Your task to perform on an android device: change your default location settings in chrome Image 0: 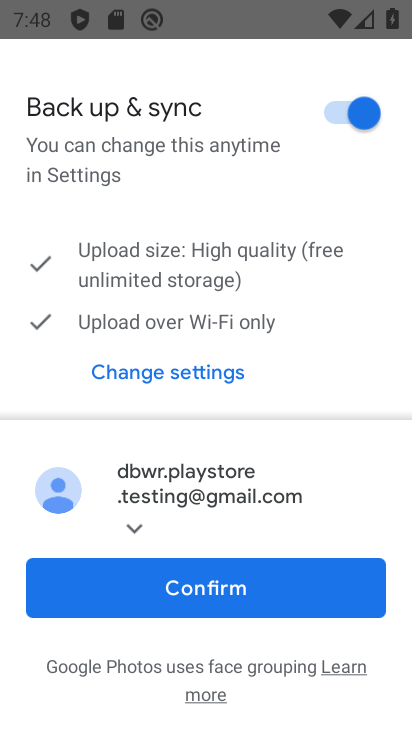
Step 0: press home button
Your task to perform on an android device: change your default location settings in chrome Image 1: 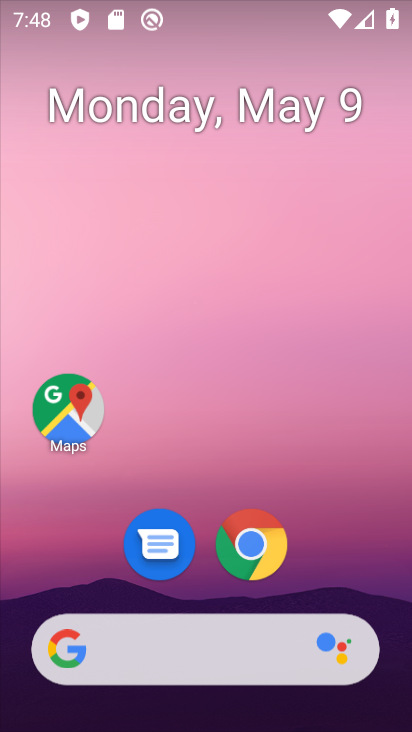
Step 1: click (265, 530)
Your task to perform on an android device: change your default location settings in chrome Image 2: 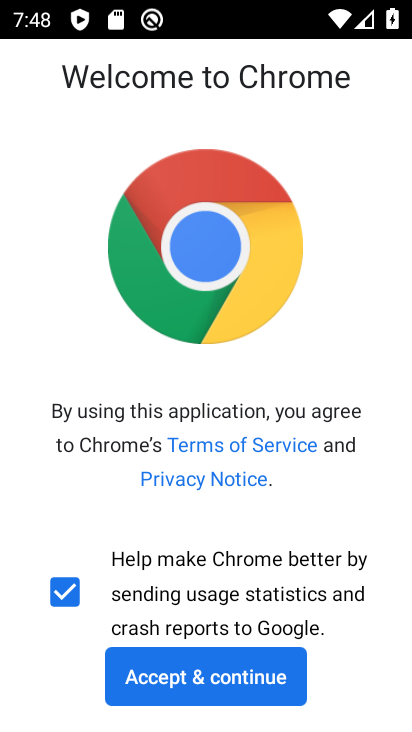
Step 2: click (192, 677)
Your task to perform on an android device: change your default location settings in chrome Image 3: 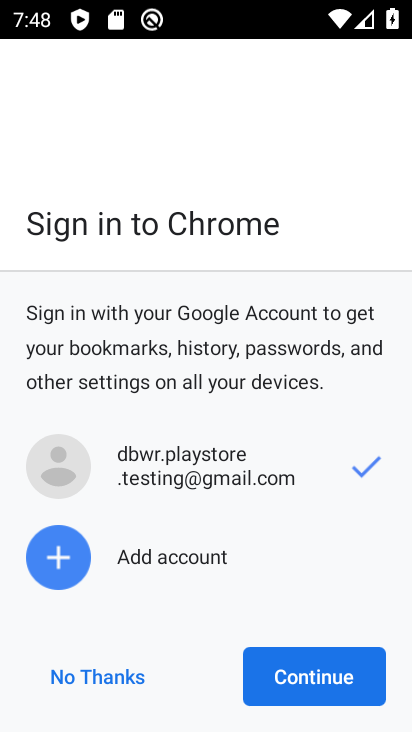
Step 3: click (282, 684)
Your task to perform on an android device: change your default location settings in chrome Image 4: 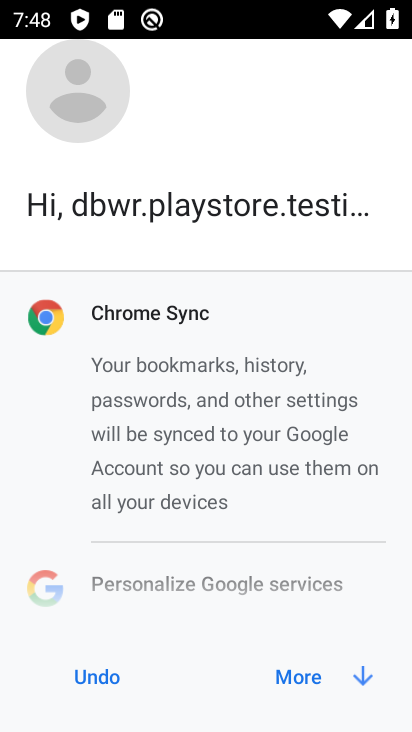
Step 4: click (282, 684)
Your task to perform on an android device: change your default location settings in chrome Image 5: 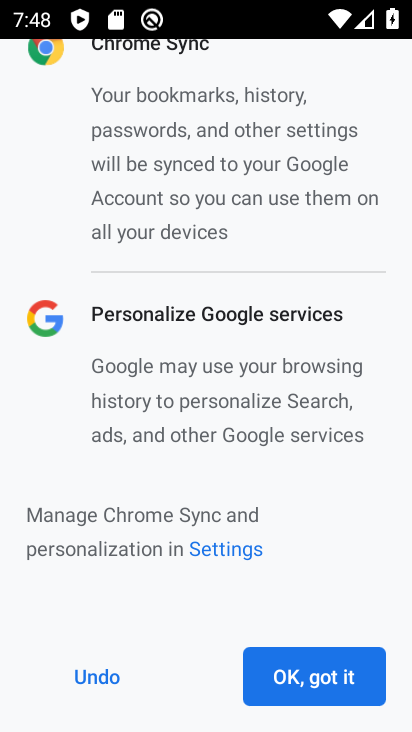
Step 5: click (282, 684)
Your task to perform on an android device: change your default location settings in chrome Image 6: 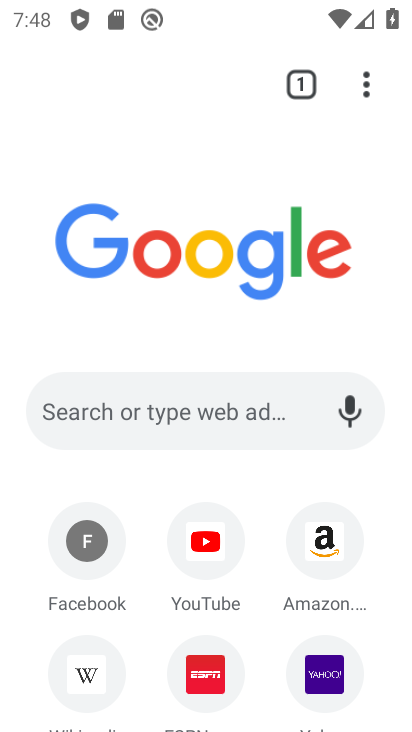
Step 6: drag from (368, 79) to (107, 597)
Your task to perform on an android device: change your default location settings in chrome Image 7: 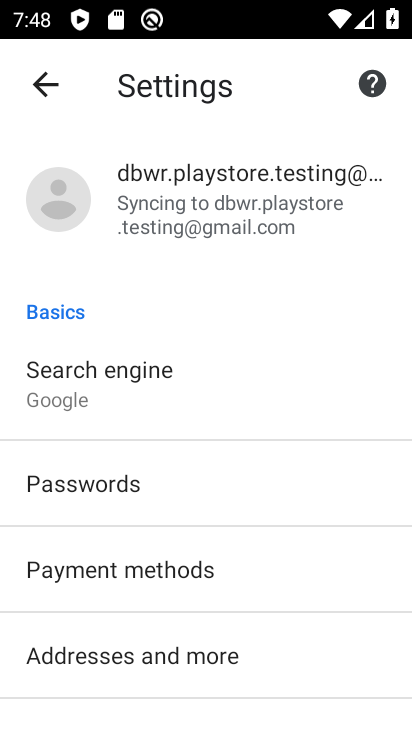
Step 7: drag from (181, 612) to (244, 217)
Your task to perform on an android device: change your default location settings in chrome Image 8: 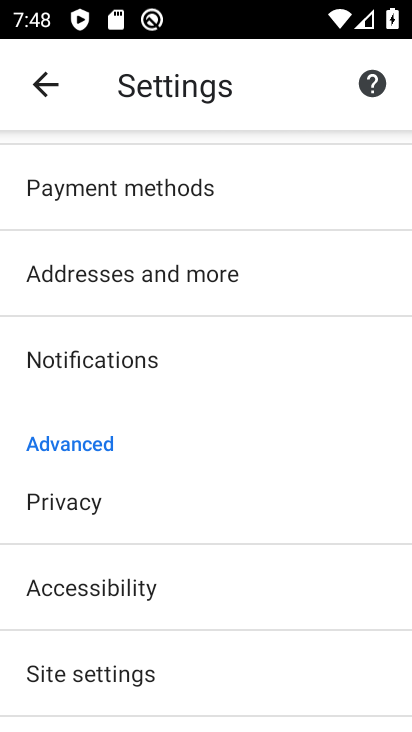
Step 8: click (174, 657)
Your task to perform on an android device: change your default location settings in chrome Image 9: 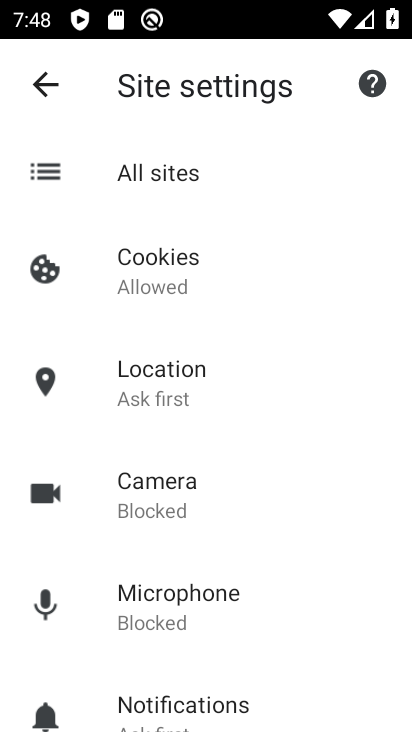
Step 9: drag from (226, 594) to (240, 321)
Your task to perform on an android device: change your default location settings in chrome Image 10: 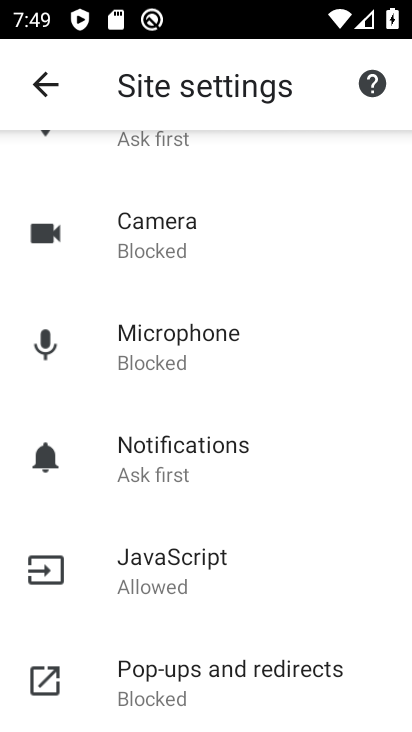
Step 10: drag from (240, 213) to (245, 334)
Your task to perform on an android device: change your default location settings in chrome Image 11: 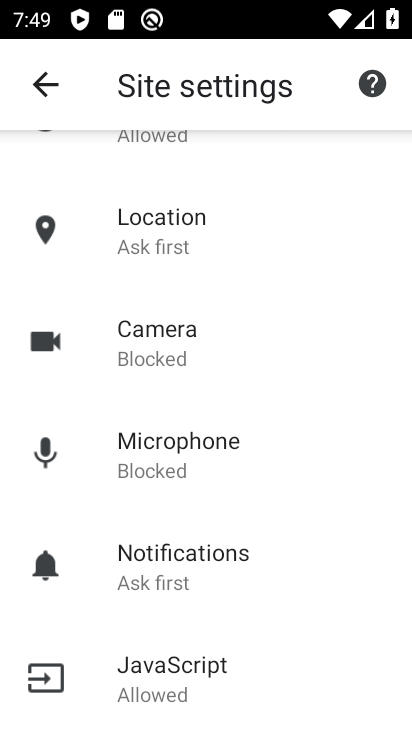
Step 11: click (185, 250)
Your task to perform on an android device: change your default location settings in chrome Image 12: 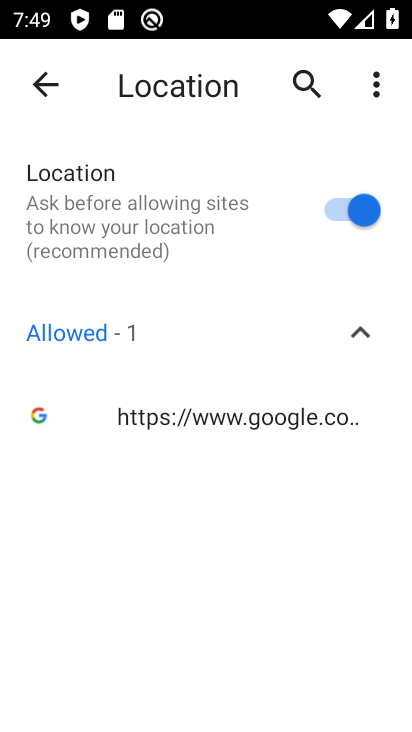
Step 12: click (339, 208)
Your task to perform on an android device: change your default location settings in chrome Image 13: 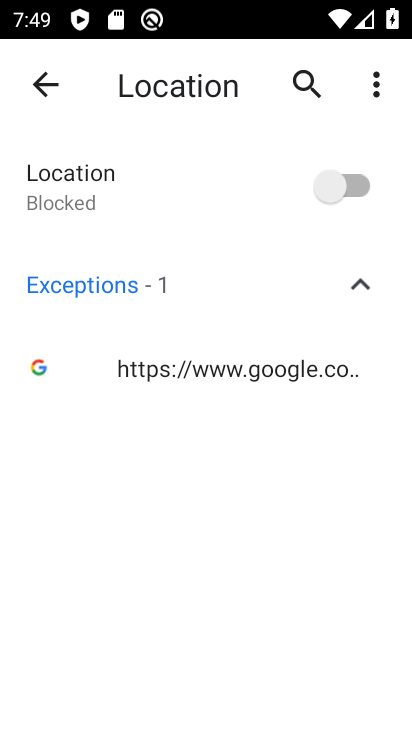
Step 13: task complete